Your task to perform on an android device: move an email to a new category in the gmail app Image 0: 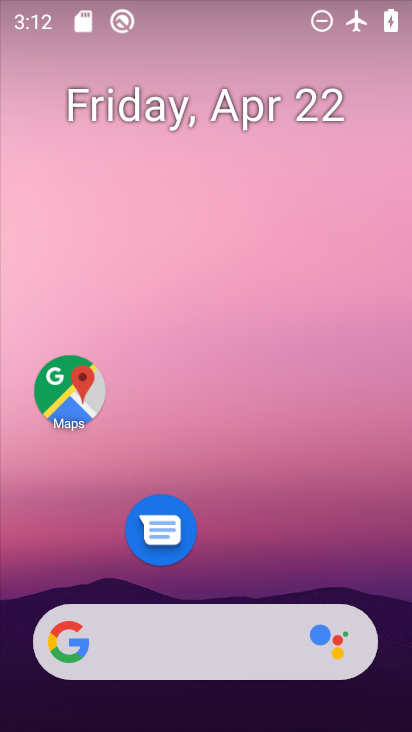
Step 0: drag from (253, 554) to (327, 22)
Your task to perform on an android device: move an email to a new category in the gmail app Image 1: 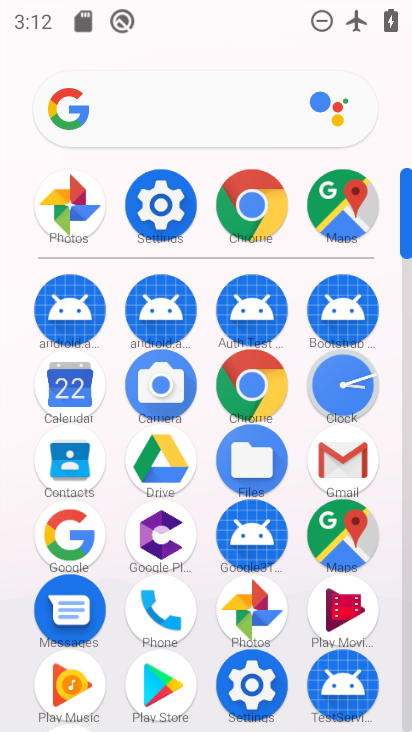
Step 1: click (346, 451)
Your task to perform on an android device: move an email to a new category in the gmail app Image 2: 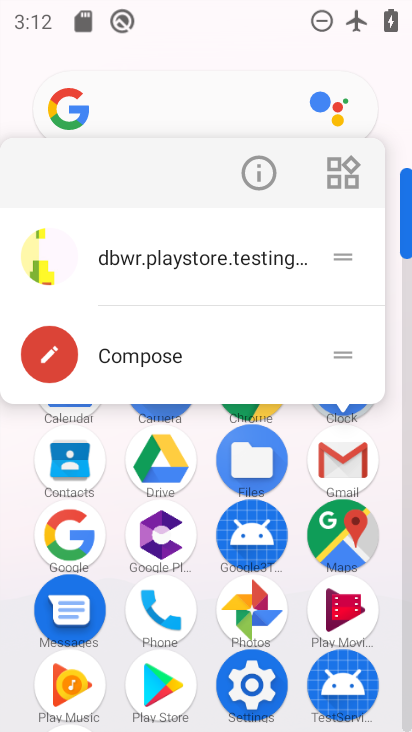
Step 2: click (349, 455)
Your task to perform on an android device: move an email to a new category in the gmail app Image 3: 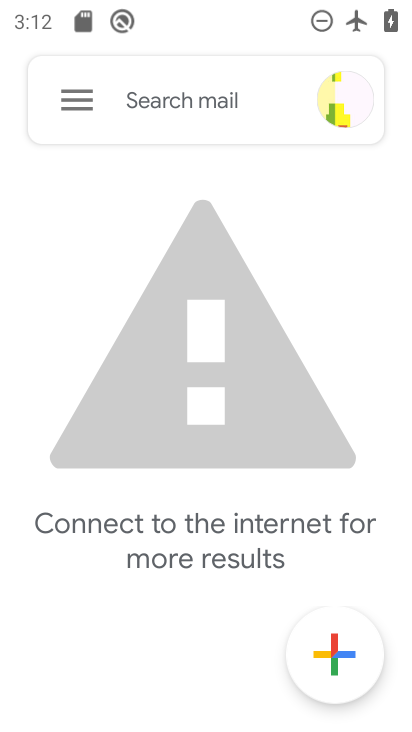
Step 3: click (64, 99)
Your task to perform on an android device: move an email to a new category in the gmail app Image 4: 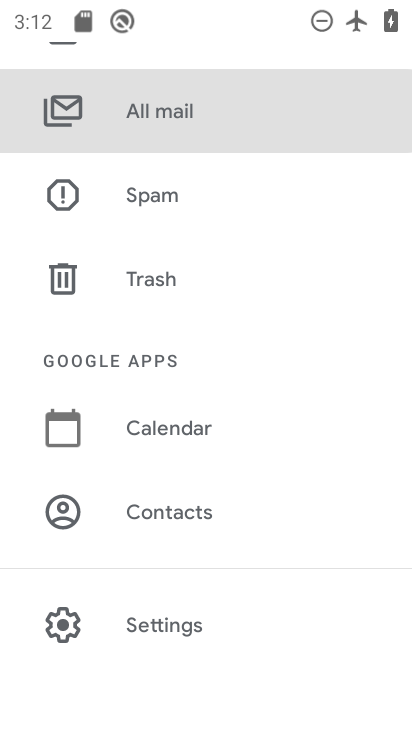
Step 4: click (149, 120)
Your task to perform on an android device: move an email to a new category in the gmail app Image 5: 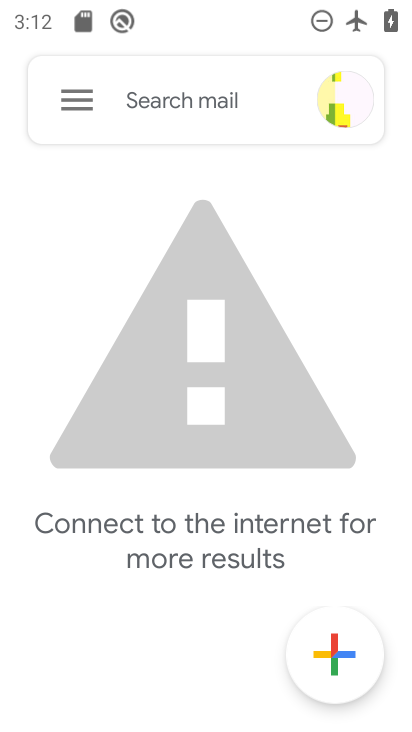
Step 5: task complete